Your task to perform on an android device: Is it going to rain tomorrow? Image 0: 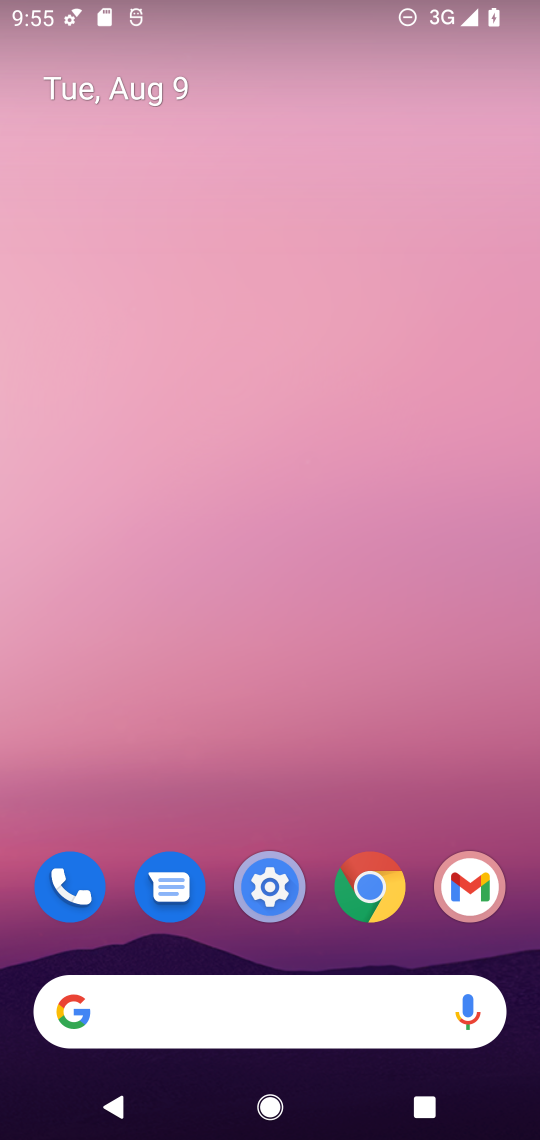
Step 0: drag from (285, 794) to (346, 138)
Your task to perform on an android device: Is it going to rain tomorrow? Image 1: 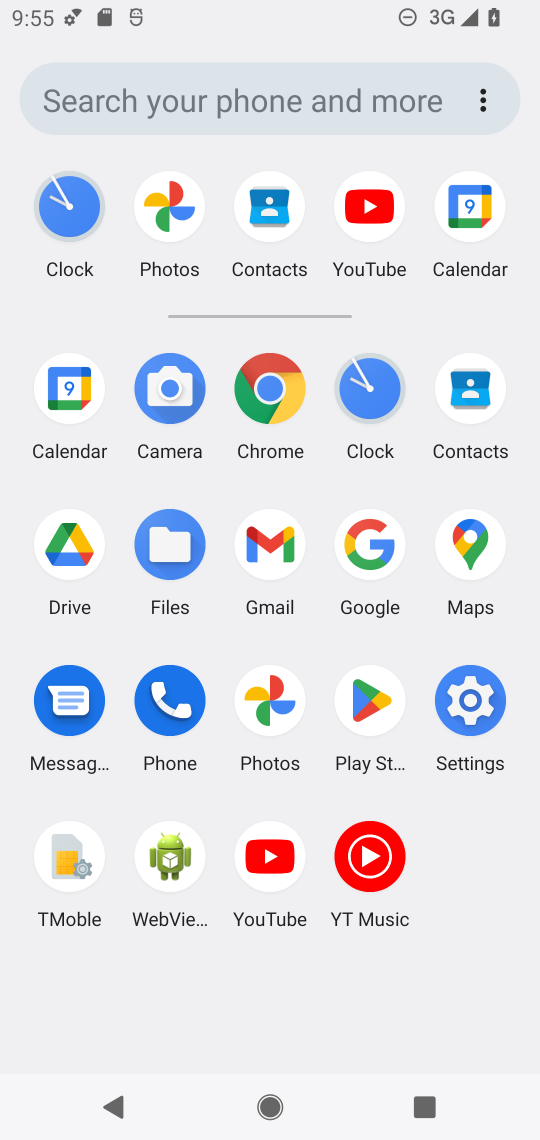
Step 1: click (364, 537)
Your task to perform on an android device: Is it going to rain tomorrow? Image 2: 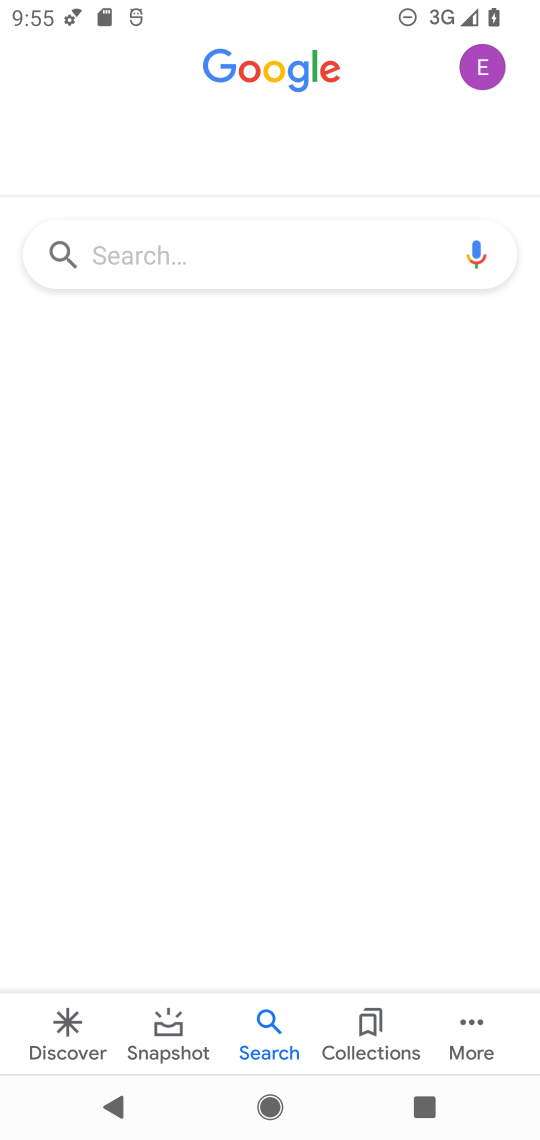
Step 2: click (177, 255)
Your task to perform on an android device: Is it going to rain tomorrow? Image 3: 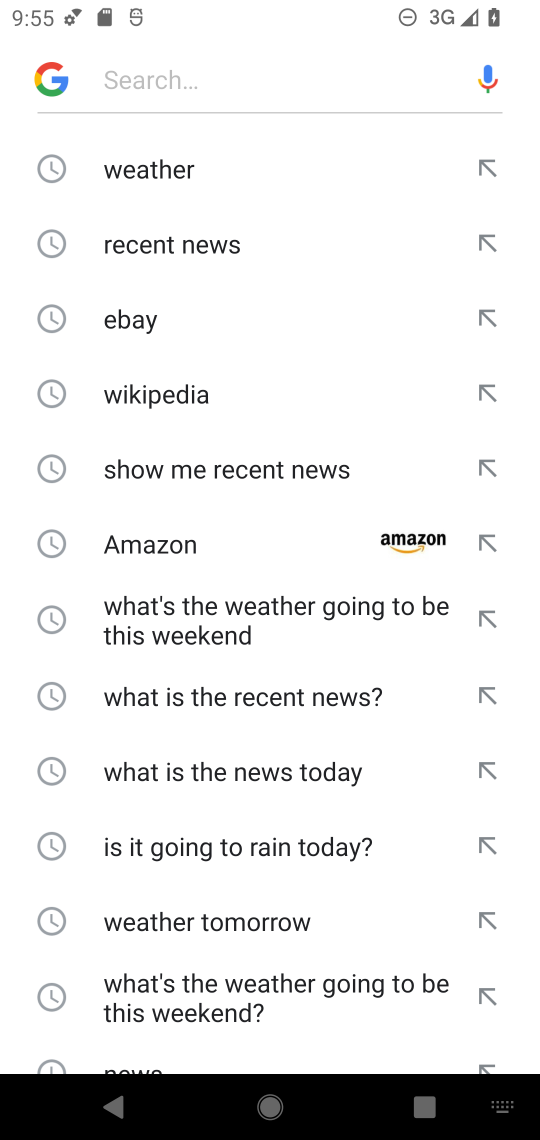
Step 3: click (188, 178)
Your task to perform on an android device: Is it going to rain tomorrow? Image 4: 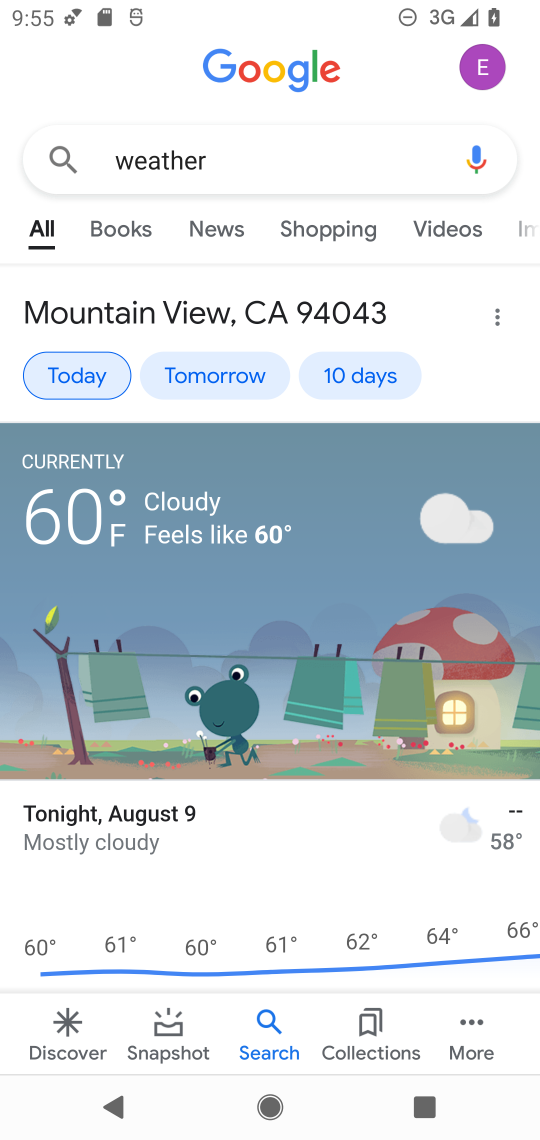
Step 4: click (210, 360)
Your task to perform on an android device: Is it going to rain tomorrow? Image 5: 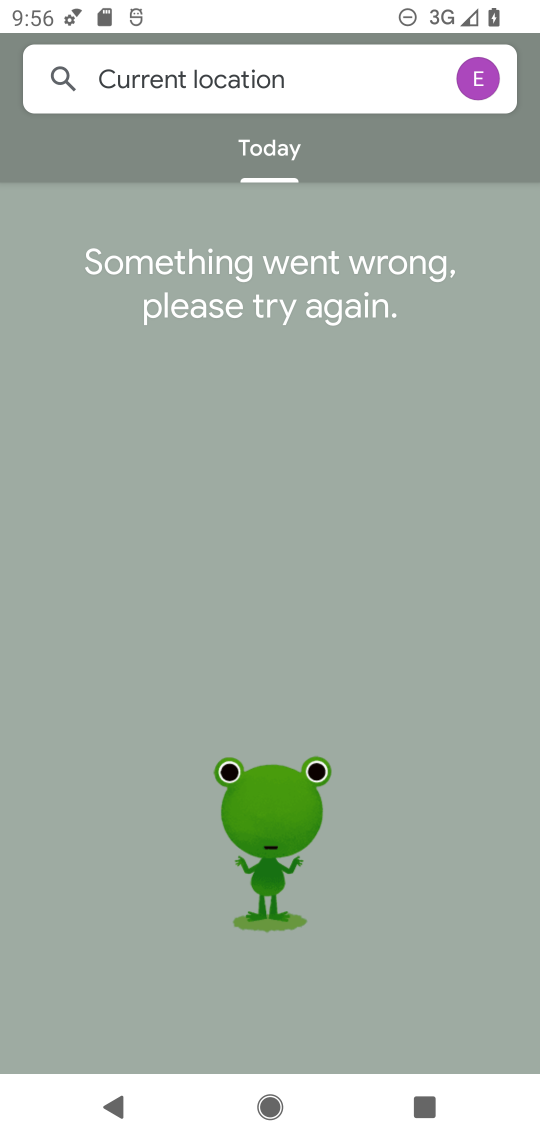
Step 5: task complete